Your task to perform on an android device: Open Reddit.com Image 0: 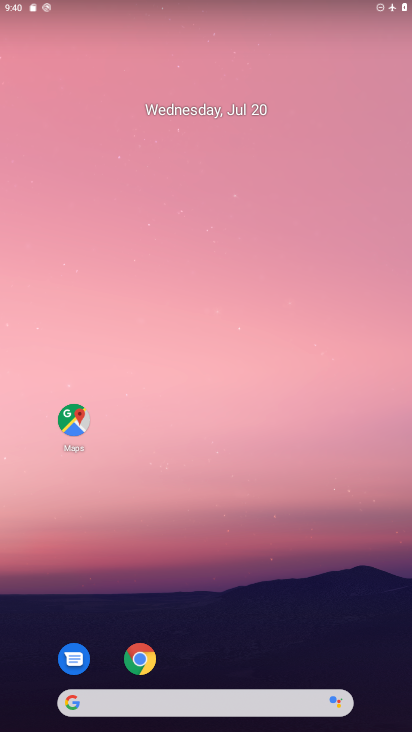
Step 0: drag from (264, 529) to (204, 24)
Your task to perform on an android device: Open Reddit.com Image 1: 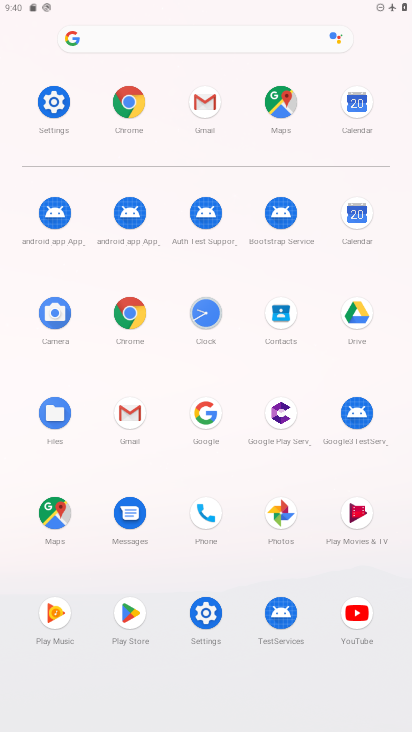
Step 1: click (134, 94)
Your task to perform on an android device: Open Reddit.com Image 2: 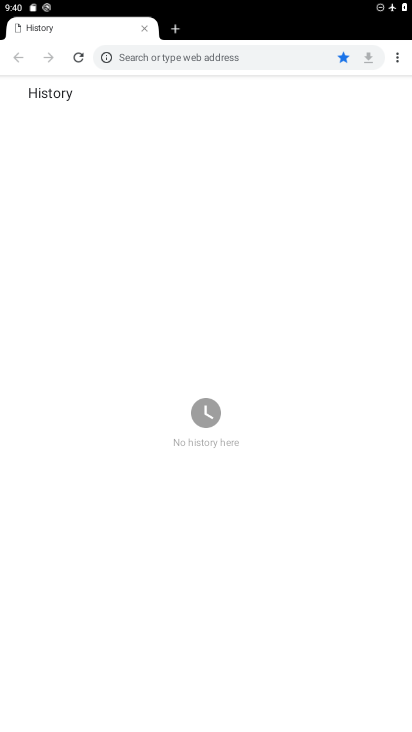
Step 2: click (156, 60)
Your task to perform on an android device: Open Reddit.com Image 3: 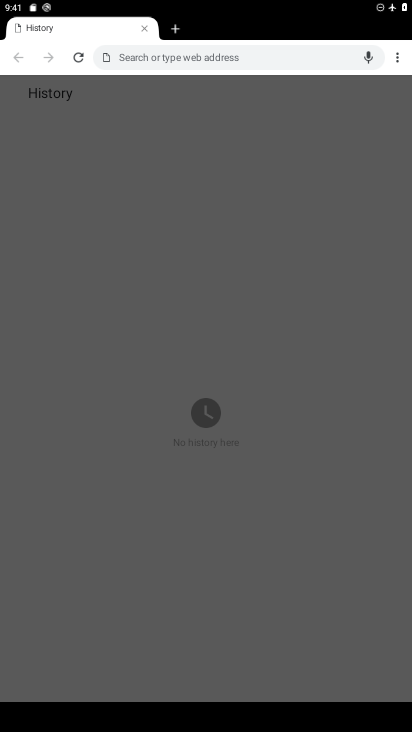
Step 3: type ""
Your task to perform on an android device: Open Reddit.com Image 4: 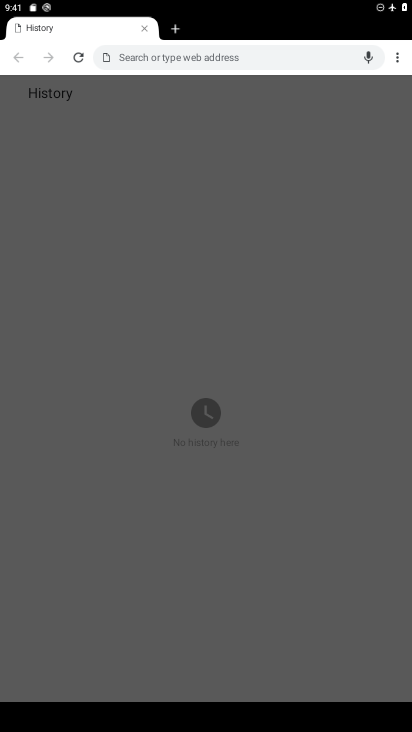
Step 4: type "reddit.com"
Your task to perform on an android device: Open Reddit.com Image 5: 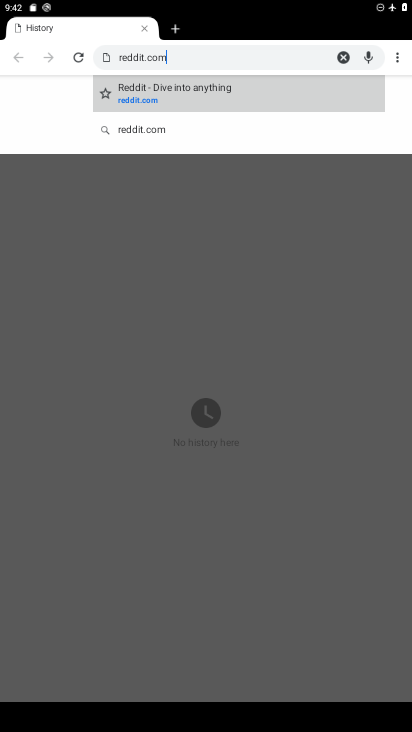
Step 5: click (152, 87)
Your task to perform on an android device: Open Reddit.com Image 6: 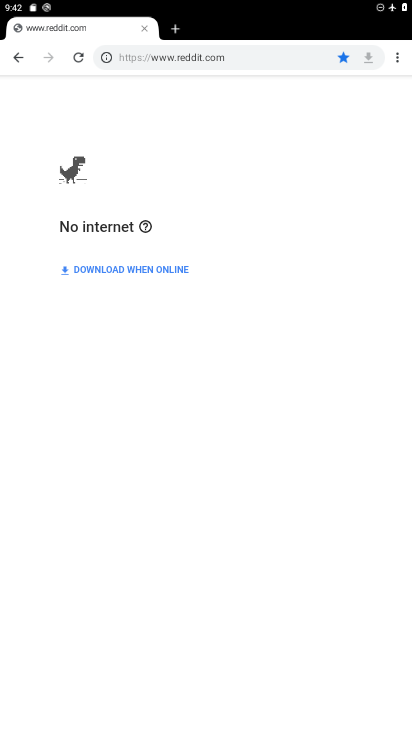
Step 6: task complete